Your task to perform on an android device: Show me recent news Image 0: 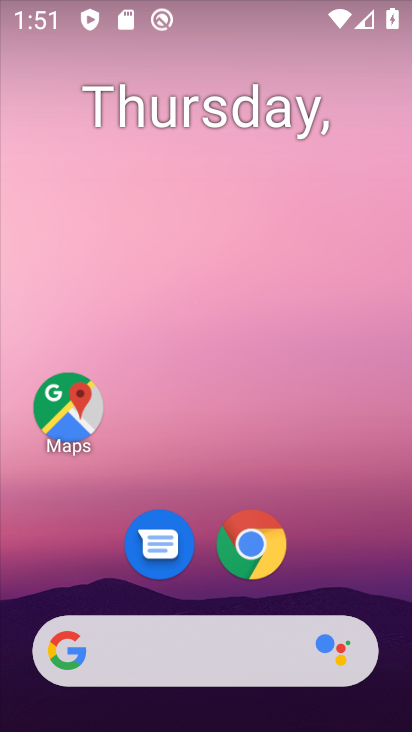
Step 0: click (265, 547)
Your task to perform on an android device: Show me recent news Image 1: 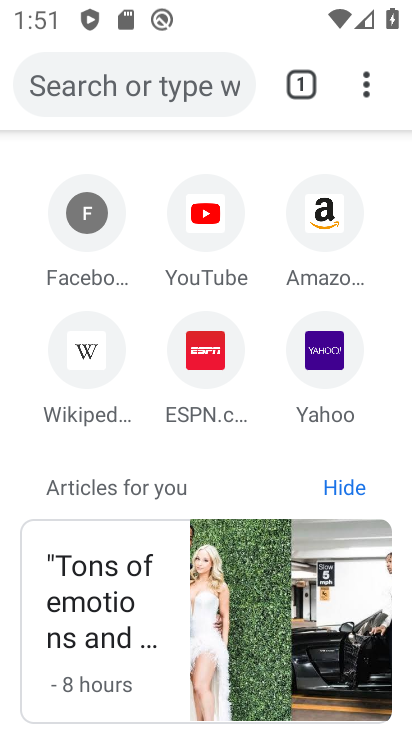
Step 1: click (164, 88)
Your task to perform on an android device: Show me recent news Image 2: 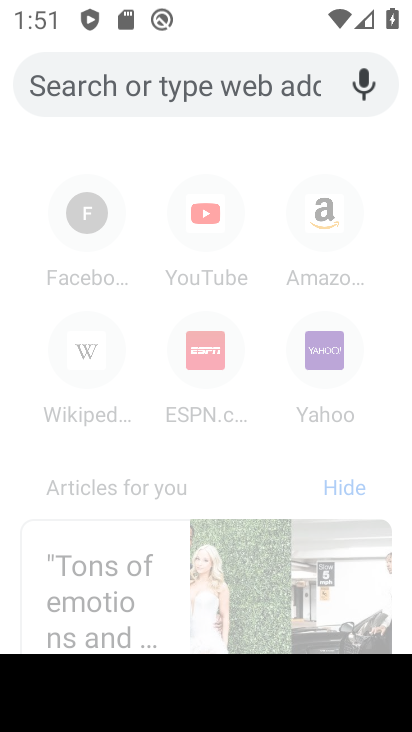
Step 2: type "show me recent news"
Your task to perform on an android device: Show me recent news Image 3: 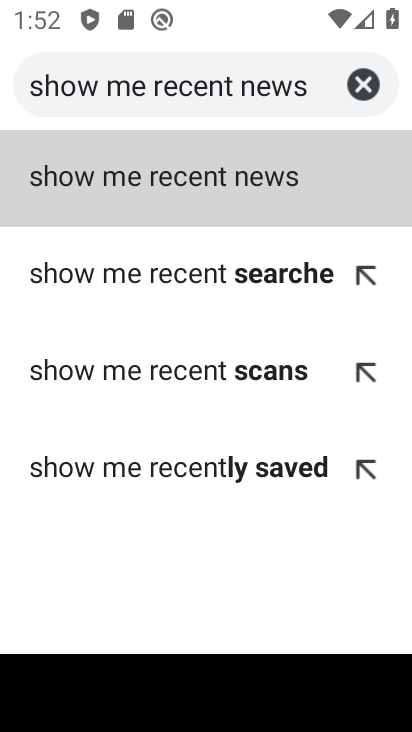
Step 3: click (118, 179)
Your task to perform on an android device: Show me recent news Image 4: 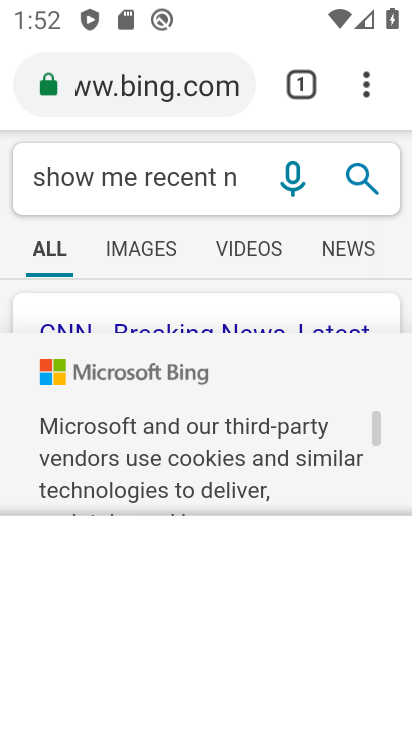
Step 4: click (222, 609)
Your task to perform on an android device: Show me recent news Image 5: 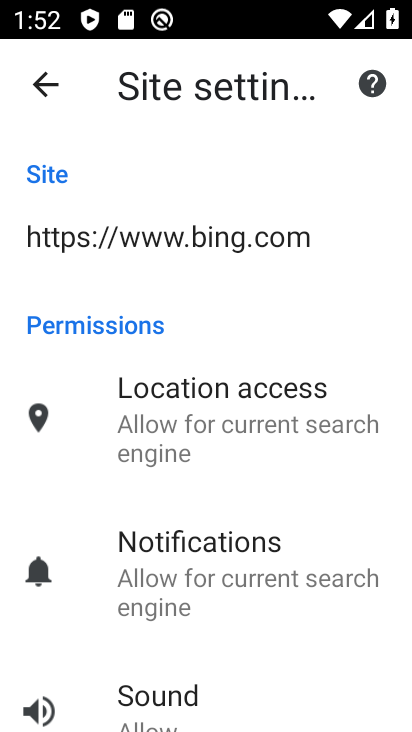
Step 5: press back button
Your task to perform on an android device: Show me recent news Image 6: 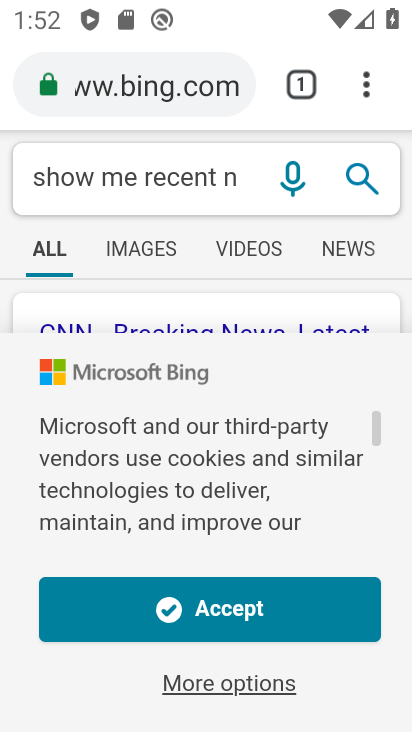
Step 6: drag from (233, 302) to (207, 132)
Your task to perform on an android device: Show me recent news Image 7: 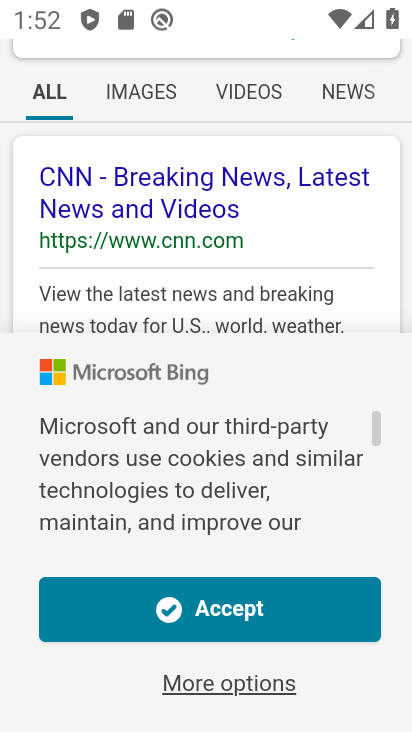
Step 7: click (327, 84)
Your task to perform on an android device: Show me recent news Image 8: 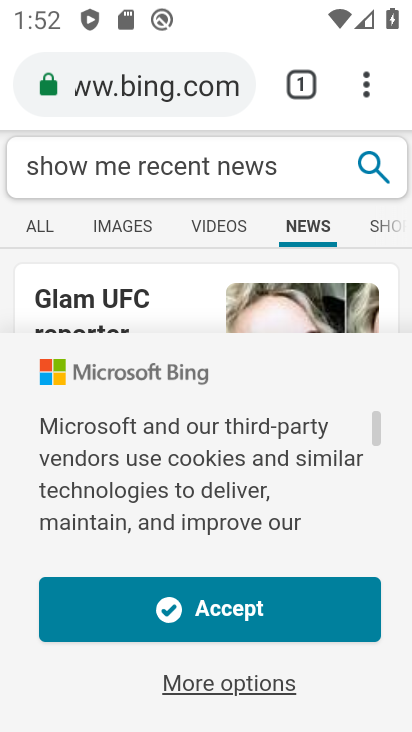
Step 8: click (176, 615)
Your task to perform on an android device: Show me recent news Image 9: 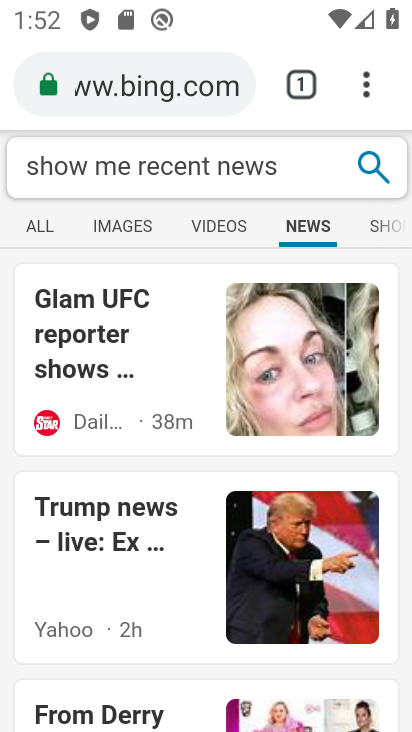
Step 9: task complete